Your task to perform on an android device: Open the Play Movies app and select the watchlist tab. Image 0: 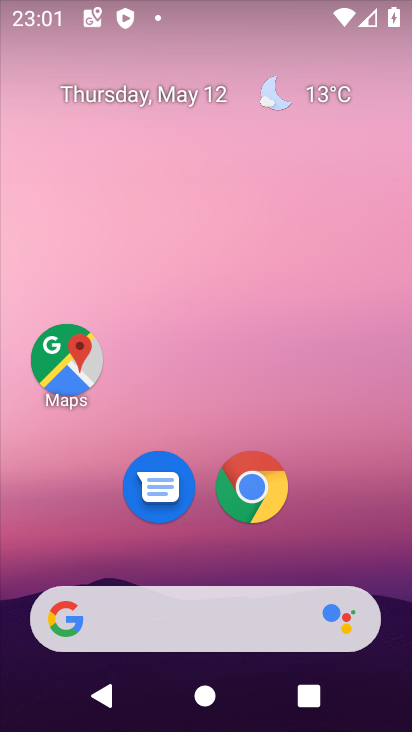
Step 0: drag from (193, 557) to (208, 198)
Your task to perform on an android device: Open the Play Movies app and select the watchlist tab. Image 1: 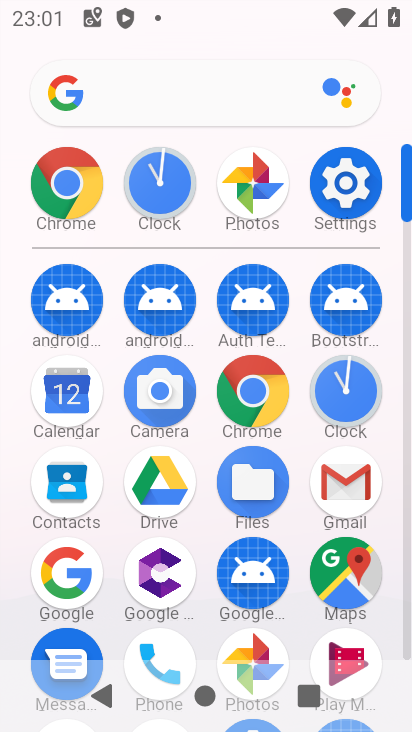
Step 1: drag from (198, 615) to (239, 96)
Your task to perform on an android device: Open the Play Movies app and select the watchlist tab. Image 2: 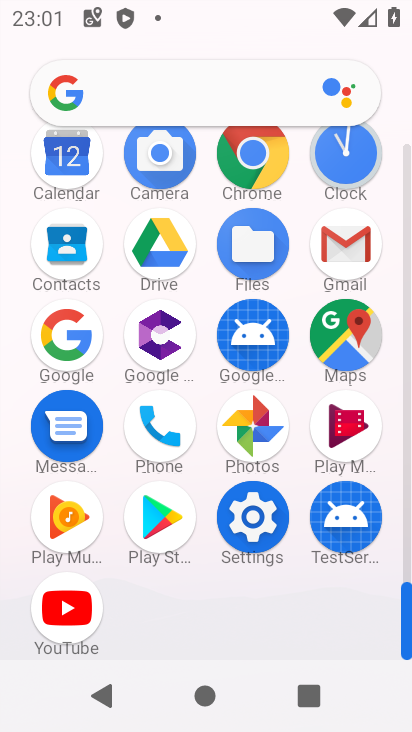
Step 2: click (345, 419)
Your task to perform on an android device: Open the Play Movies app and select the watchlist tab. Image 3: 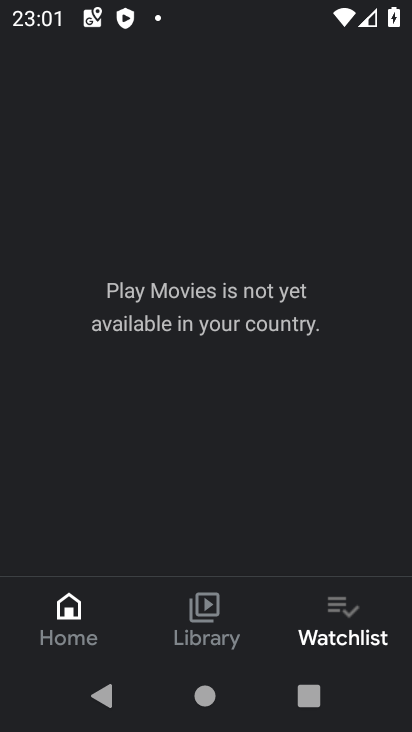
Step 3: click (327, 624)
Your task to perform on an android device: Open the Play Movies app and select the watchlist tab. Image 4: 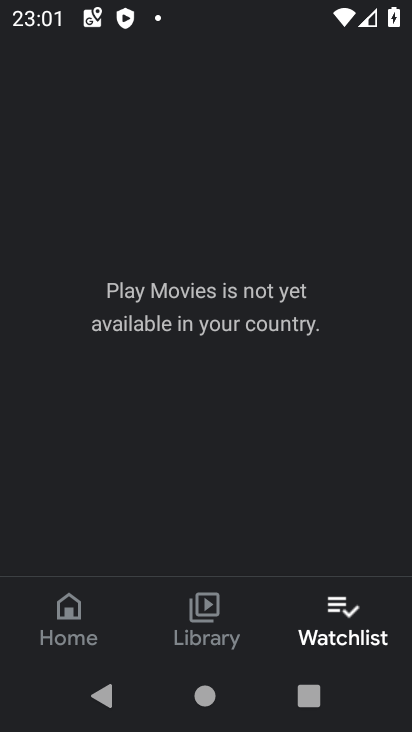
Step 4: task complete